Your task to perform on an android device: open device folders in google photos Image 0: 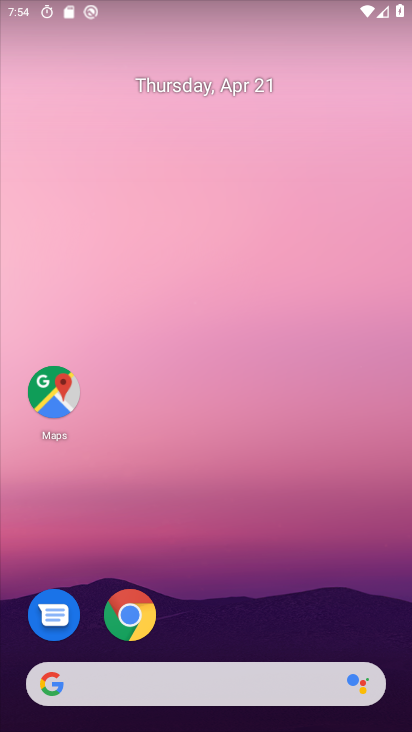
Step 0: drag from (211, 680) to (306, 210)
Your task to perform on an android device: open device folders in google photos Image 1: 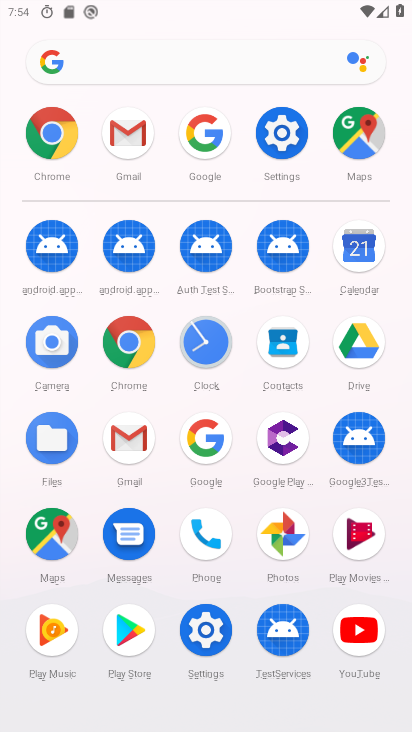
Step 1: click (294, 537)
Your task to perform on an android device: open device folders in google photos Image 2: 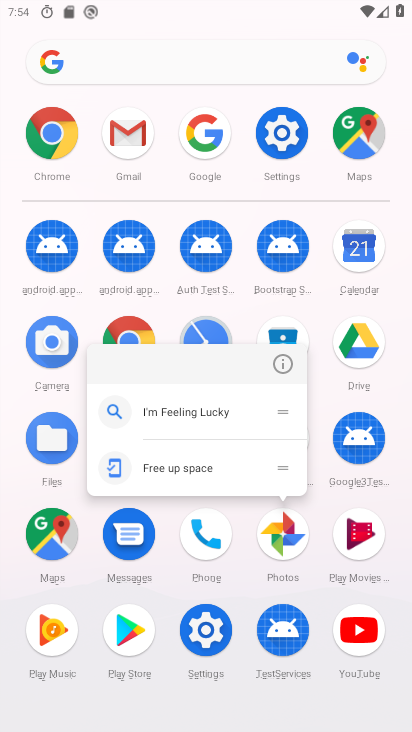
Step 2: click (284, 543)
Your task to perform on an android device: open device folders in google photos Image 3: 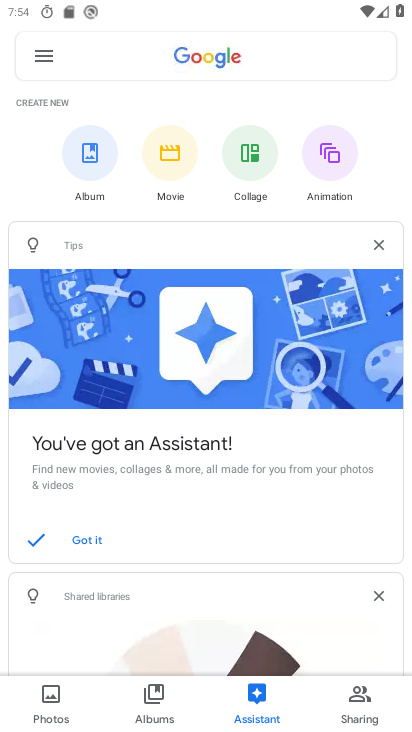
Step 3: click (40, 58)
Your task to perform on an android device: open device folders in google photos Image 4: 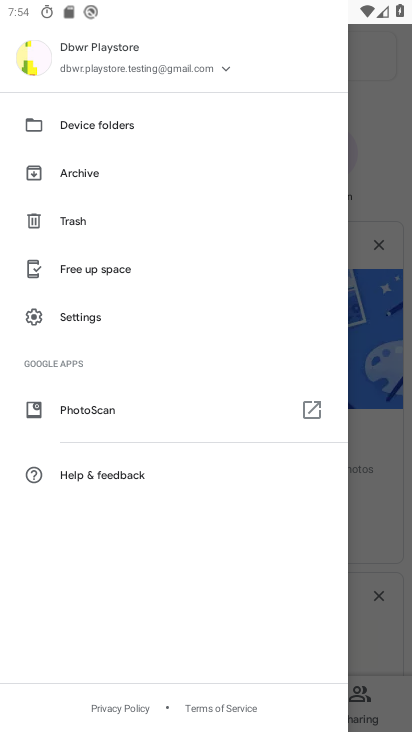
Step 4: click (63, 128)
Your task to perform on an android device: open device folders in google photos Image 5: 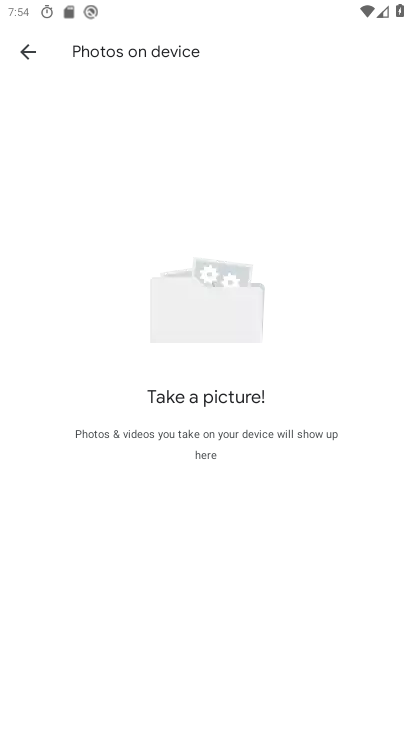
Step 5: task complete